Your task to perform on an android device: allow notifications from all sites in the chrome app Image 0: 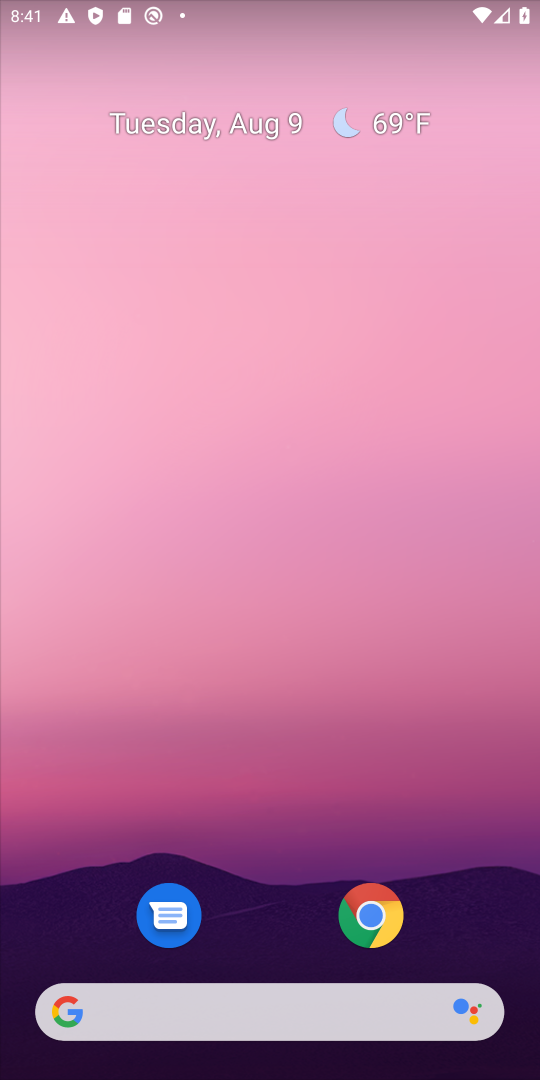
Step 0: click (349, 919)
Your task to perform on an android device: allow notifications from all sites in the chrome app Image 1: 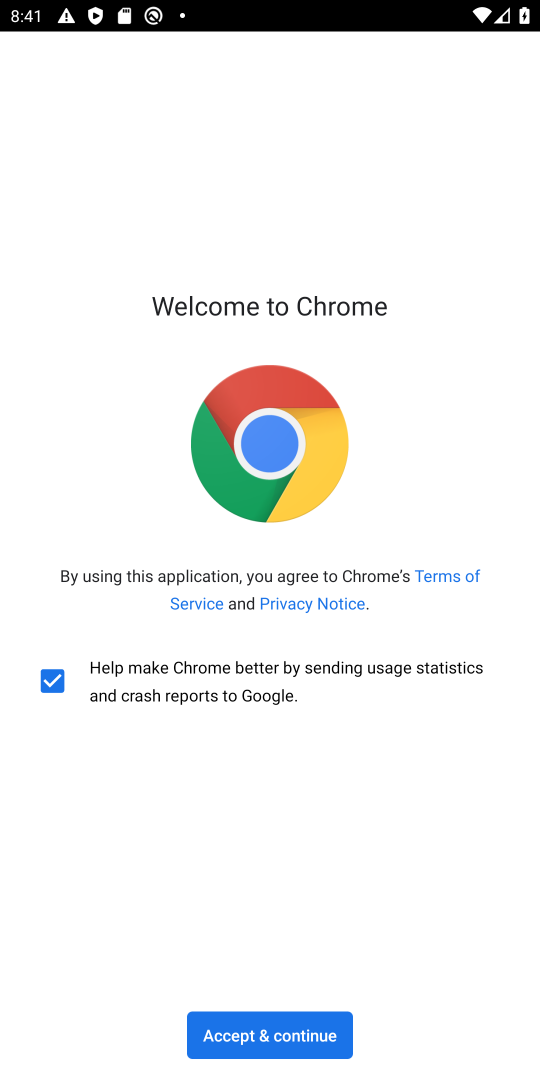
Step 1: click (242, 1038)
Your task to perform on an android device: allow notifications from all sites in the chrome app Image 2: 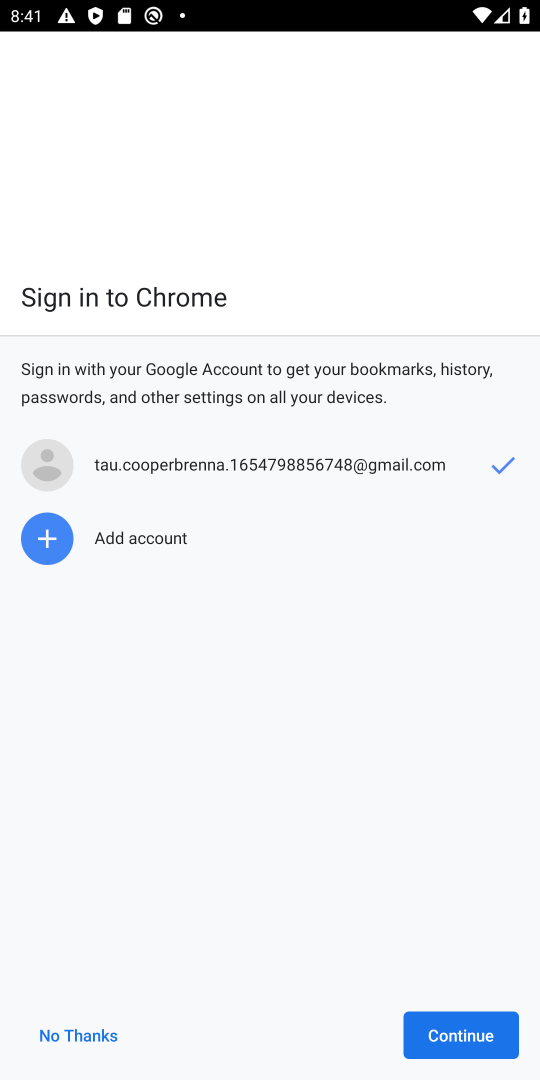
Step 2: click (447, 1032)
Your task to perform on an android device: allow notifications from all sites in the chrome app Image 3: 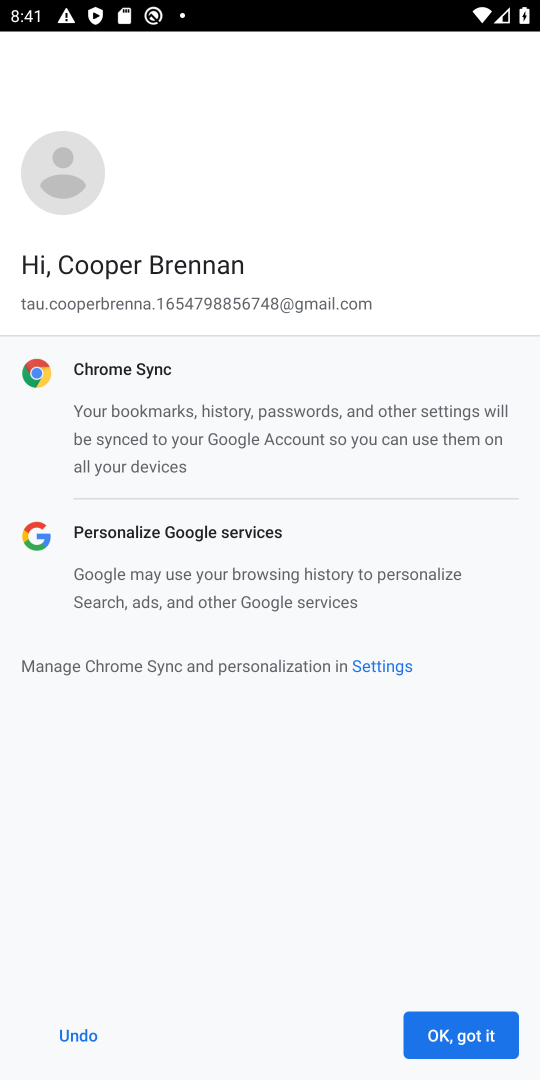
Step 3: click (479, 1030)
Your task to perform on an android device: allow notifications from all sites in the chrome app Image 4: 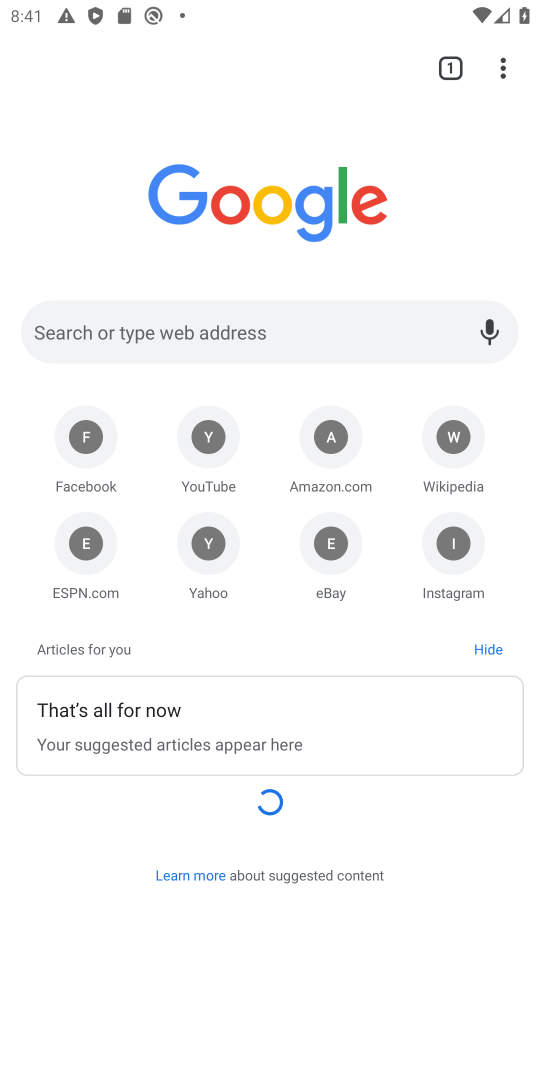
Step 4: click (500, 73)
Your task to perform on an android device: allow notifications from all sites in the chrome app Image 5: 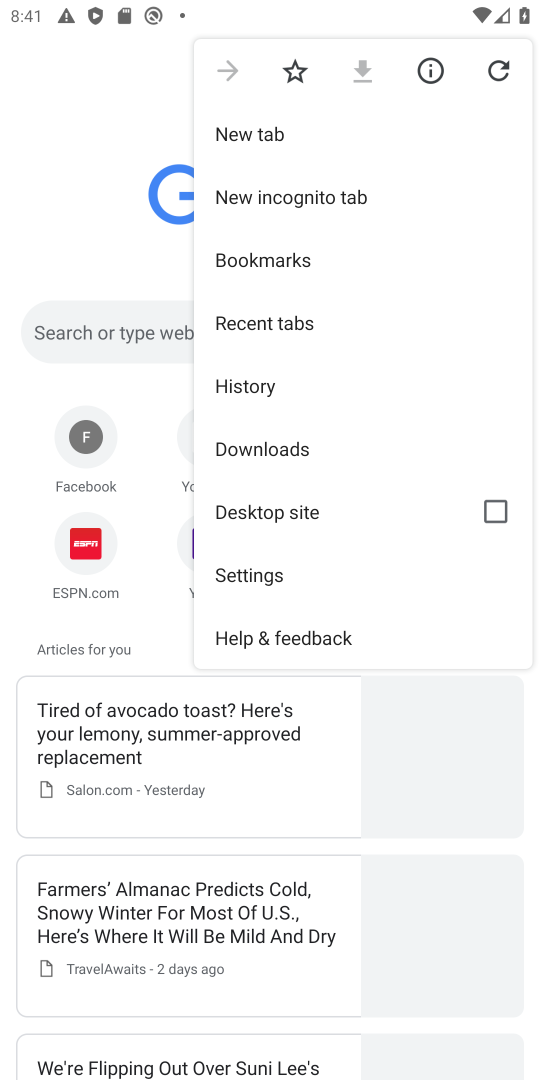
Step 5: click (272, 567)
Your task to perform on an android device: allow notifications from all sites in the chrome app Image 6: 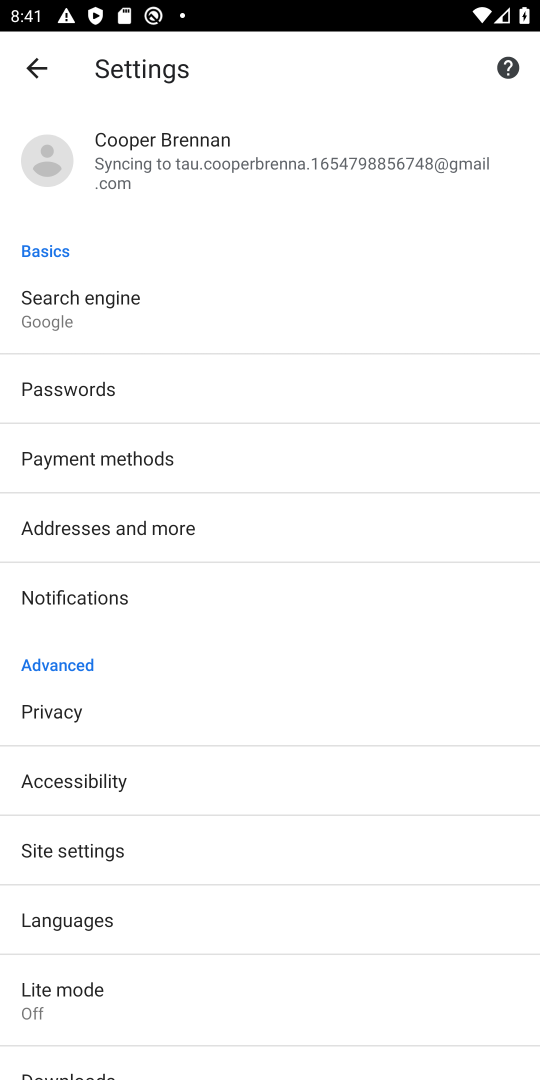
Step 6: click (57, 594)
Your task to perform on an android device: allow notifications from all sites in the chrome app Image 7: 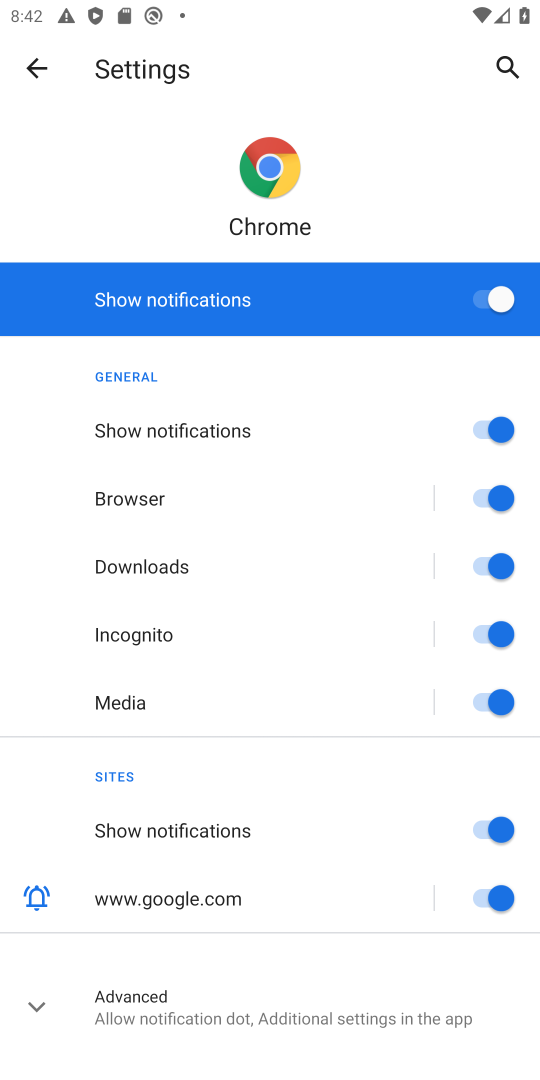
Step 7: drag from (308, 745) to (246, 421)
Your task to perform on an android device: allow notifications from all sites in the chrome app Image 8: 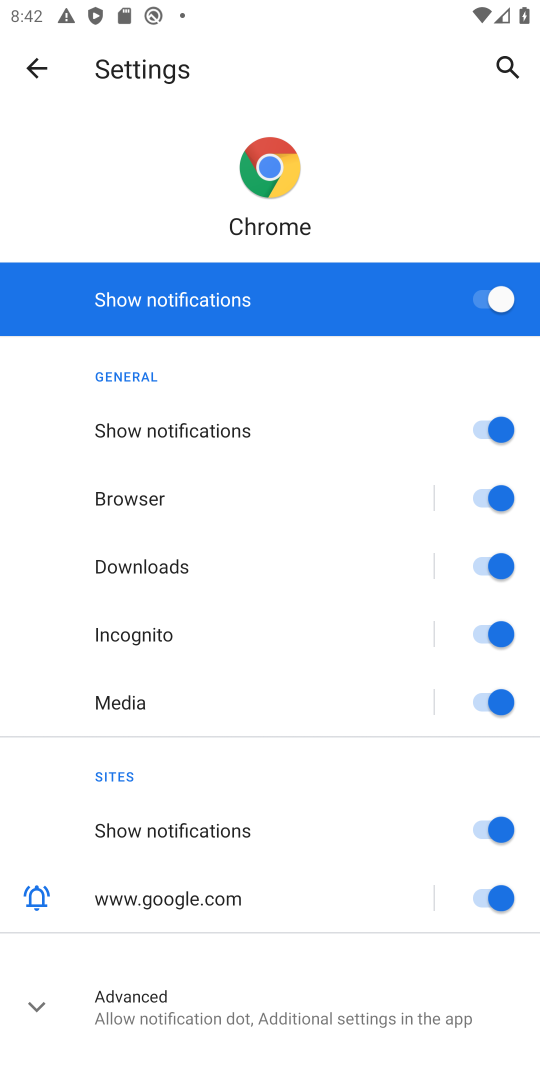
Step 8: click (34, 1010)
Your task to perform on an android device: allow notifications from all sites in the chrome app Image 9: 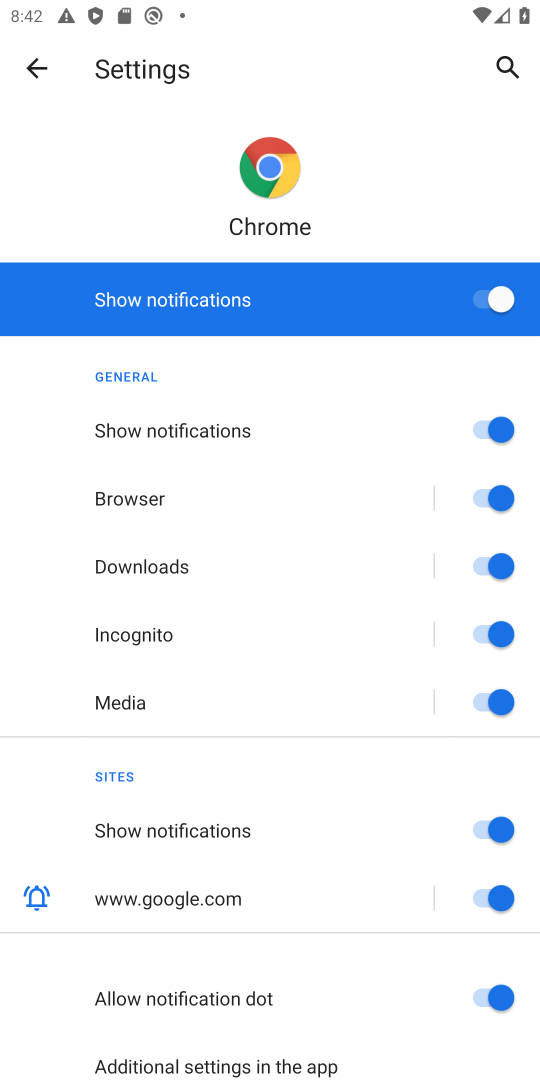
Step 9: drag from (312, 971) to (196, 530)
Your task to perform on an android device: allow notifications from all sites in the chrome app Image 10: 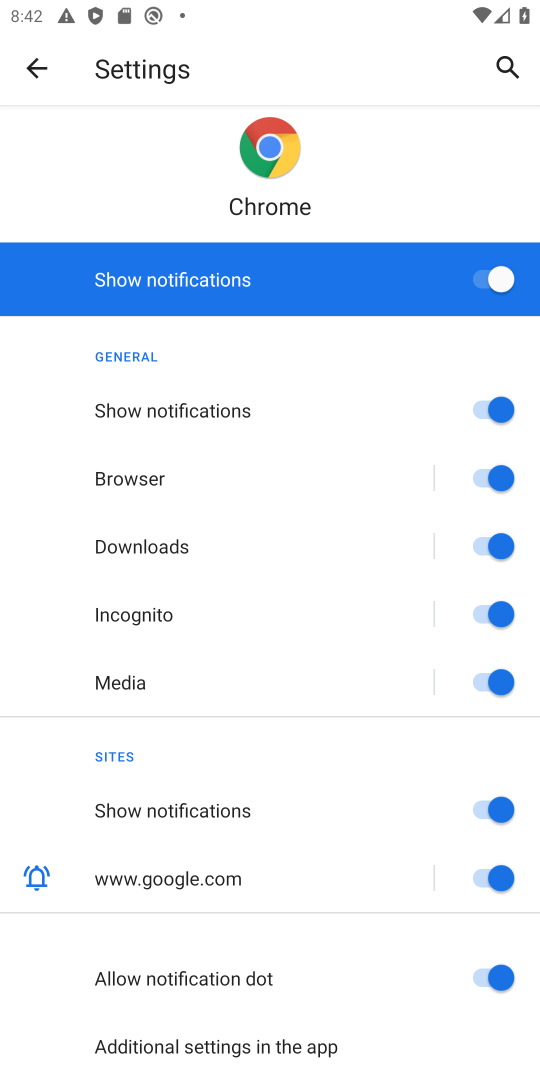
Step 10: click (33, 71)
Your task to perform on an android device: allow notifications from all sites in the chrome app Image 11: 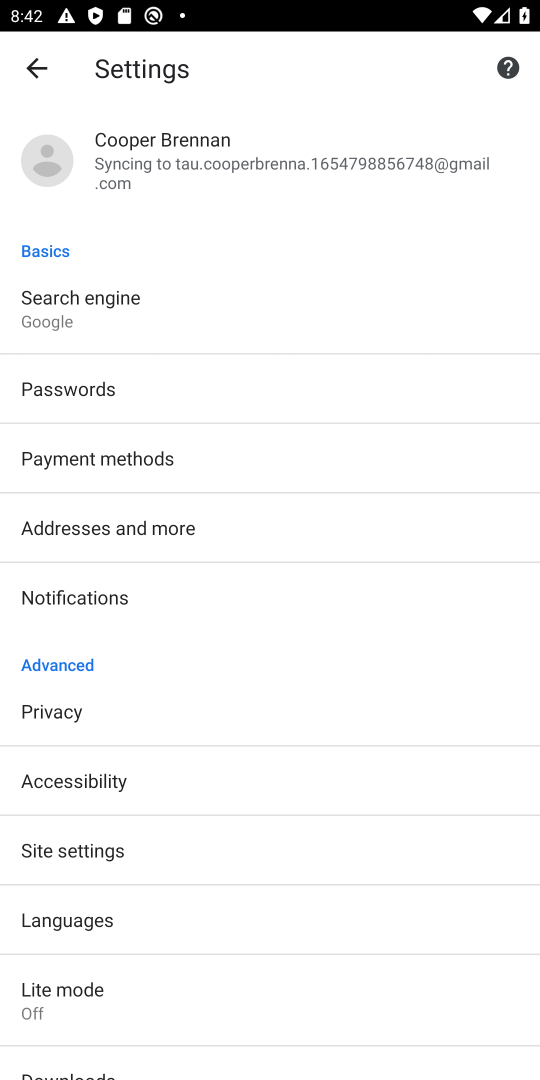
Step 11: click (128, 864)
Your task to perform on an android device: allow notifications from all sites in the chrome app Image 12: 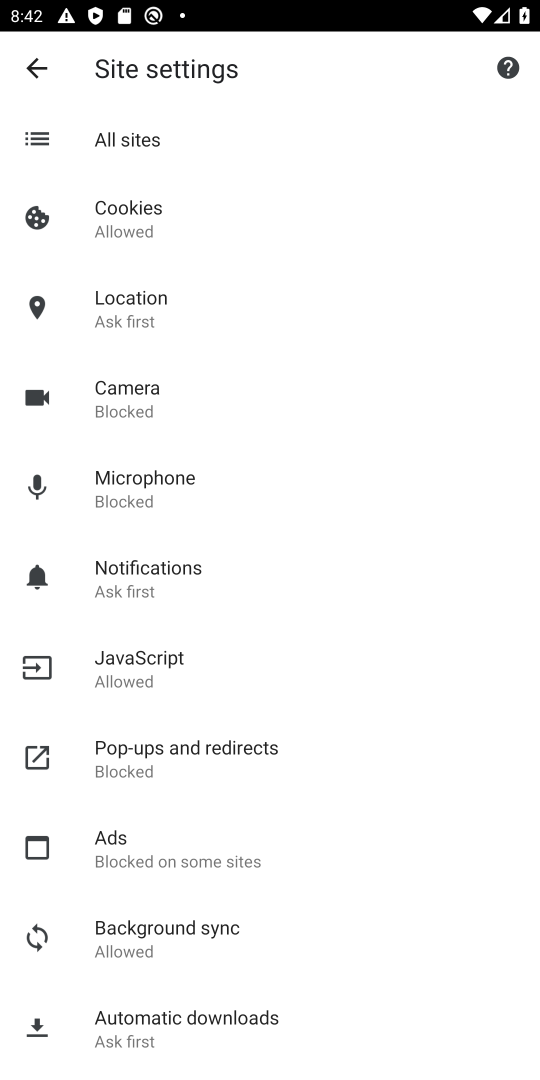
Step 12: drag from (304, 846) to (458, 889)
Your task to perform on an android device: allow notifications from all sites in the chrome app Image 13: 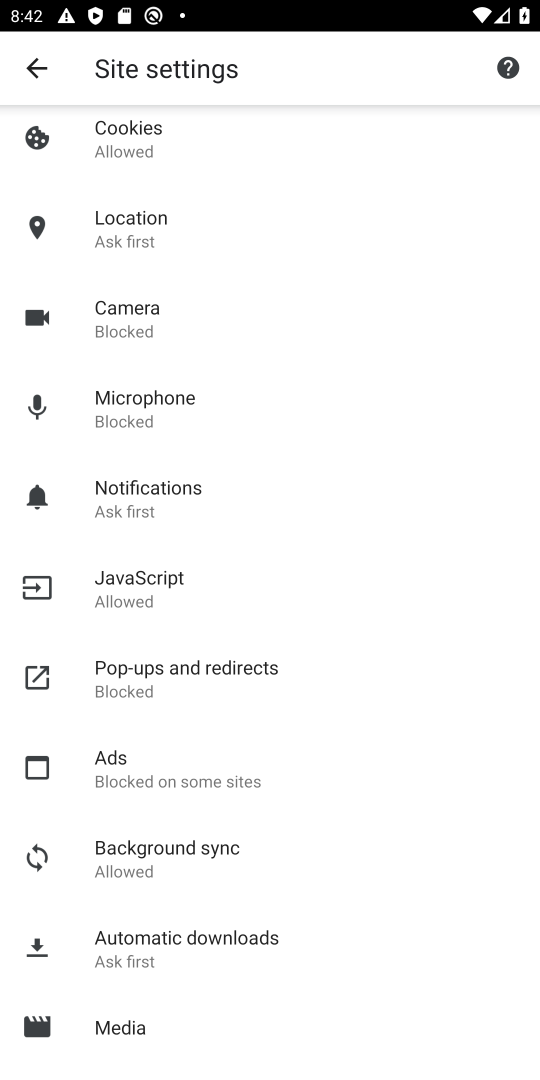
Step 13: click (132, 493)
Your task to perform on an android device: allow notifications from all sites in the chrome app Image 14: 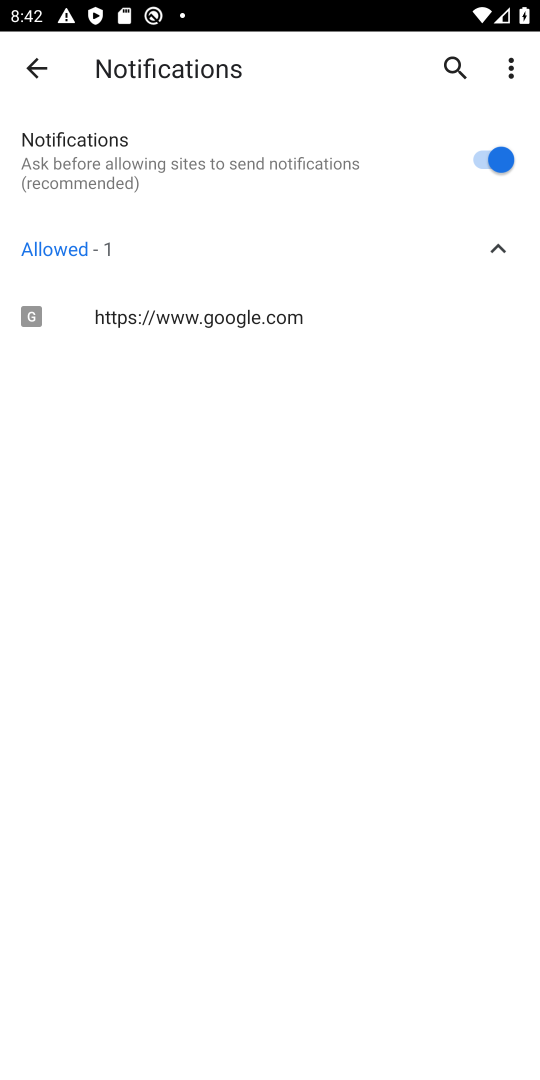
Step 14: click (496, 153)
Your task to perform on an android device: allow notifications from all sites in the chrome app Image 15: 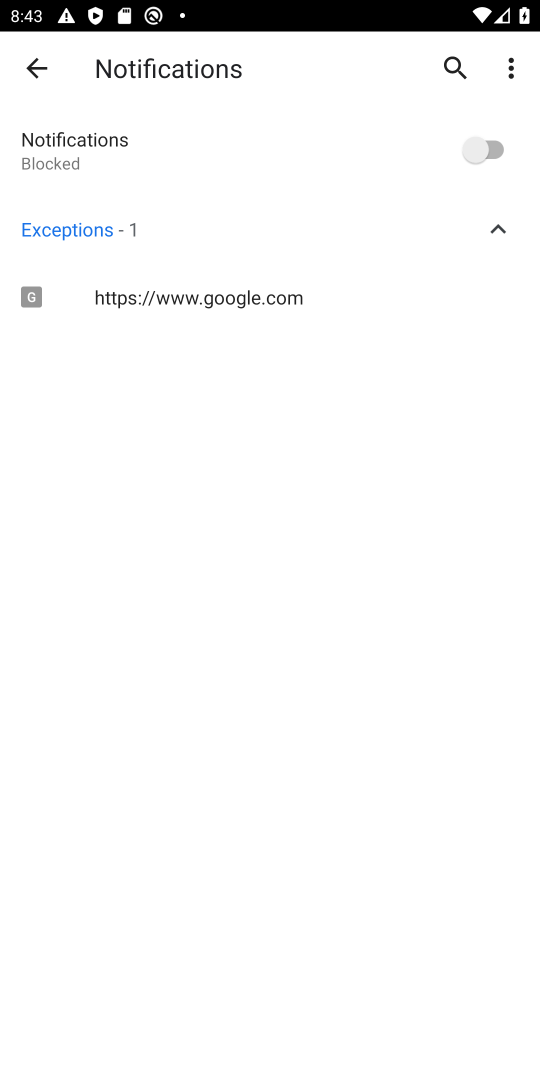
Step 15: click (478, 149)
Your task to perform on an android device: allow notifications from all sites in the chrome app Image 16: 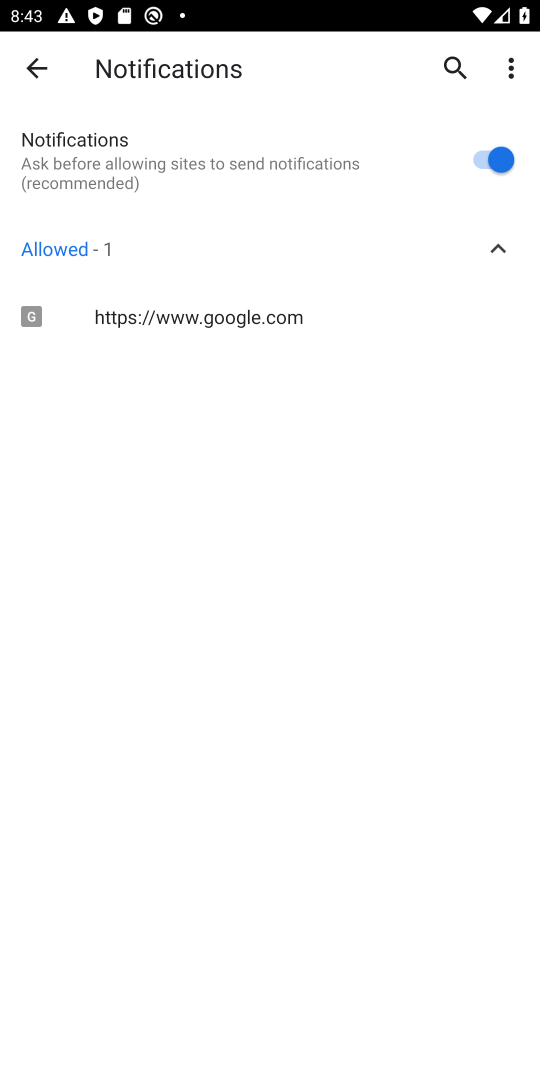
Step 16: task complete